Your task to perform on an android device: Open the calendar app, open the side menu, and click the "Day" option Image 0: 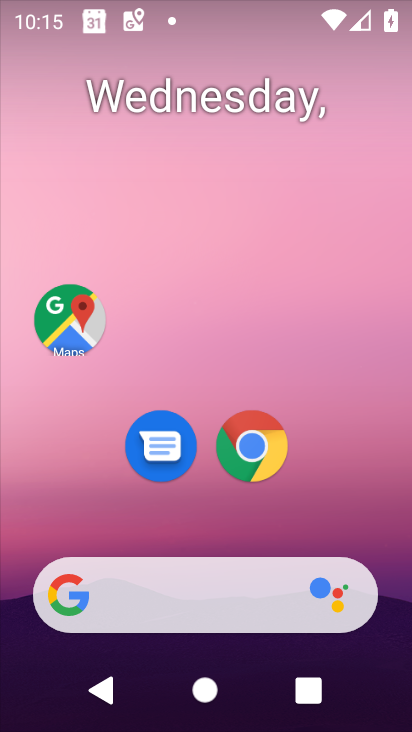
Step 0: drag from (307, 316) to (249, 30)
Your task to perform on an android device: Open the calendar app, open the side menu, and click the "Day" option Image 1: 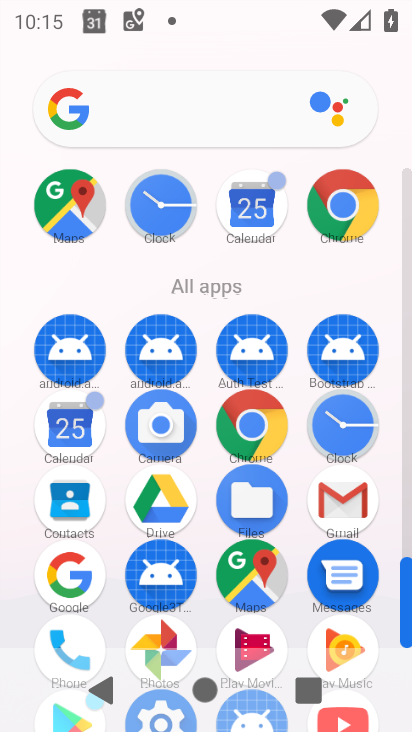
Step 1: click (250, 227)
Your task to perform on an android device: Open the calendar app, open the side menu, and click the "Day" option Image 2: 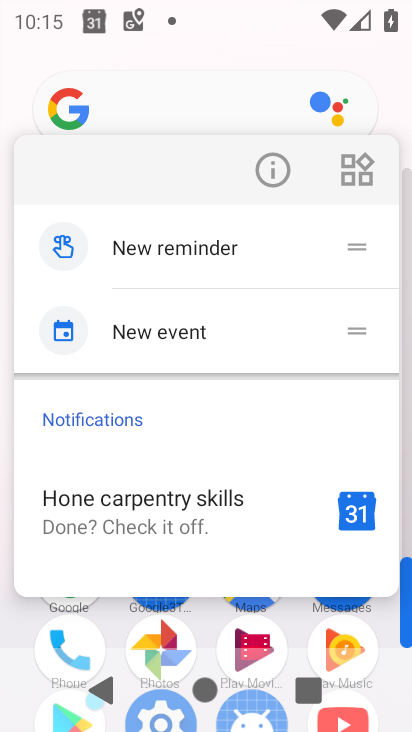
Step 2: click (335, 517)
Your task to perform on an android device: Open the calendar app, open the side menu, and click the "Day" option Image 3: 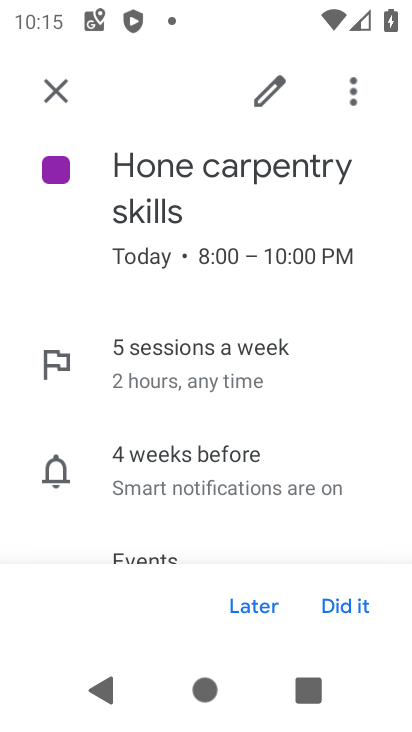
Step 3: click (60, 93)
Your task to perform on an android device: Open the calendar app, open the side menu, and click the "Day" option Image 4: 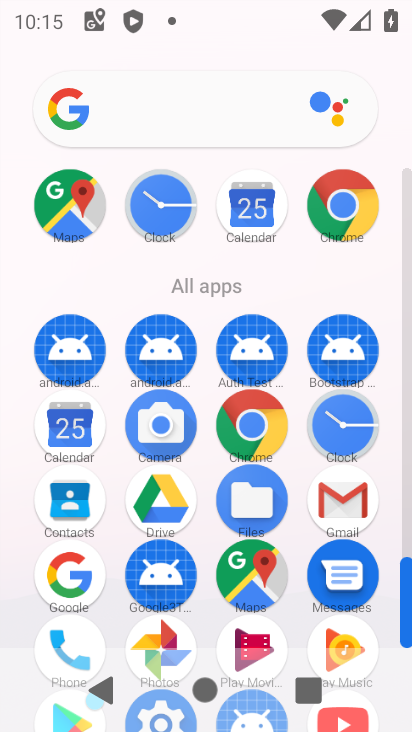
Step 4: click (248, 229)
Your task to perform on an android device: Open the calendar app, open the side menu, and click the "Day" option Image 5: 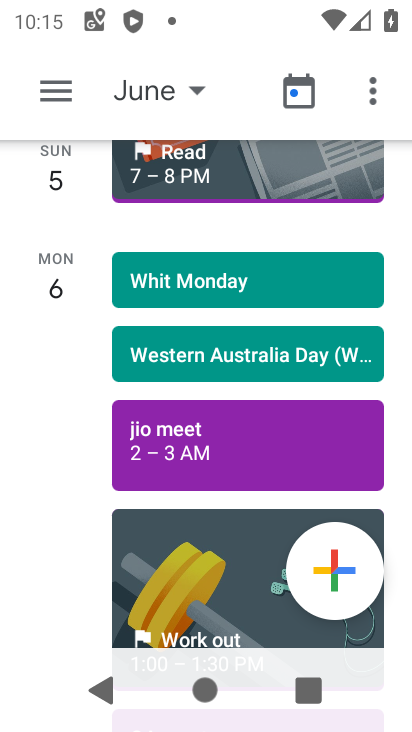
Step 5: click (68, 90)
Your task to perform on an android device: Open the calendar app, open the side menu, and click the "Day" option Image 6: 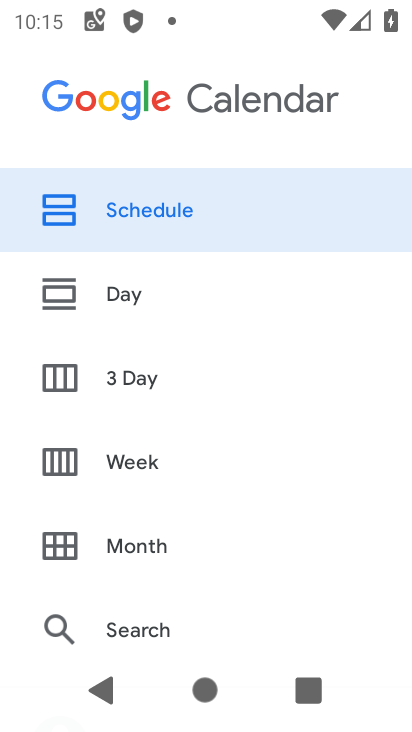
Step 6: click (137, 299)
Your task to perform on an android device: Open the calendar app, open the side menu, and click the "Day" option Image 7: 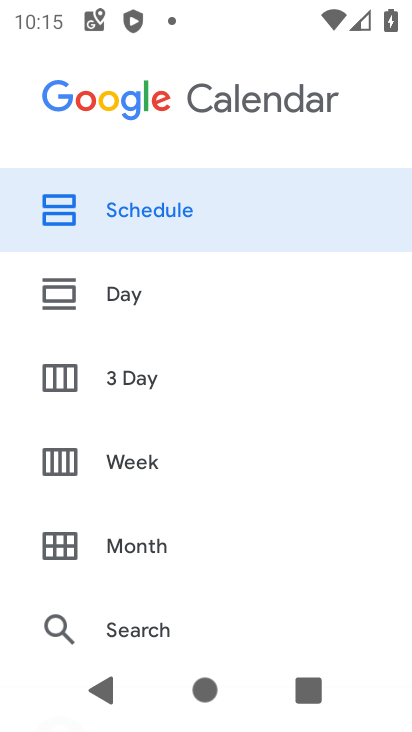
Step 7: click (137, 299)
Your task to perform on an android device: Open the calendar app, open the side menu, and click the "Day" option Image 8: 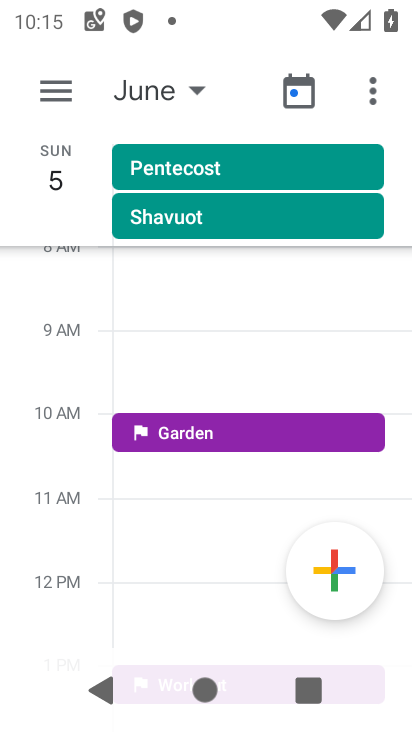
Step 8: task complete